Your task to perform on an android device: Open network settings Image 0: 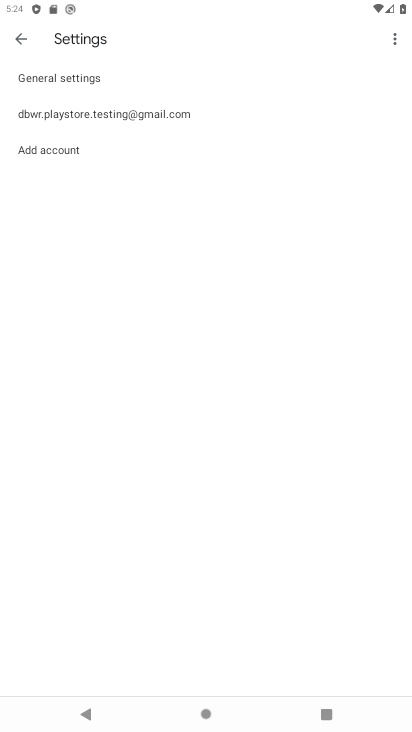
Step 0: press home button
Your task to perform on an android device: Open network settings Image 1: 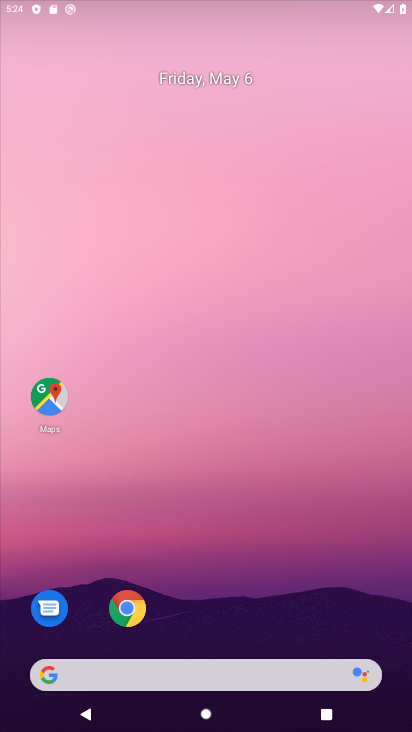
Step 1: drag from (239, 620) to (261, 8)
Your task to perform on an android device: Open network settings Image 2: 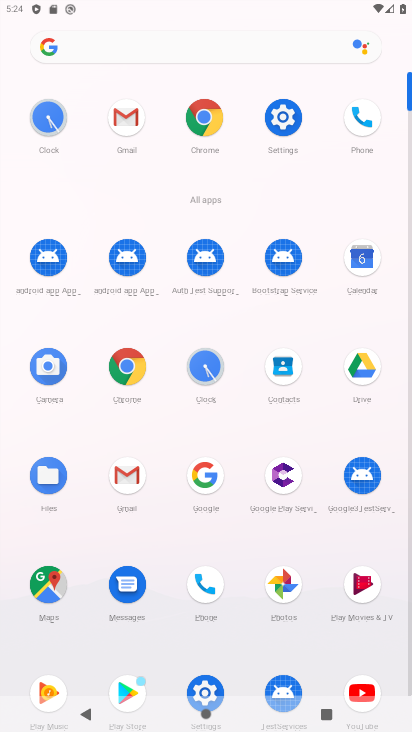
Step 2: click (275, 102)
Your task to perform on an android device: Open network settings Image 3: 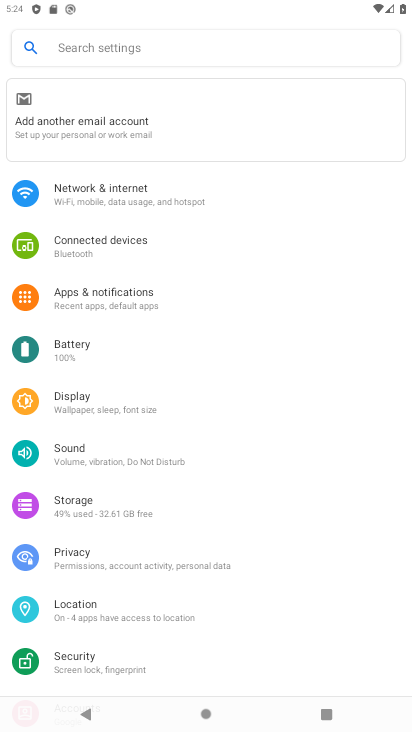
Step 3: click (116, 184)
Your task to perform on an android device: Open network settings Image 4: 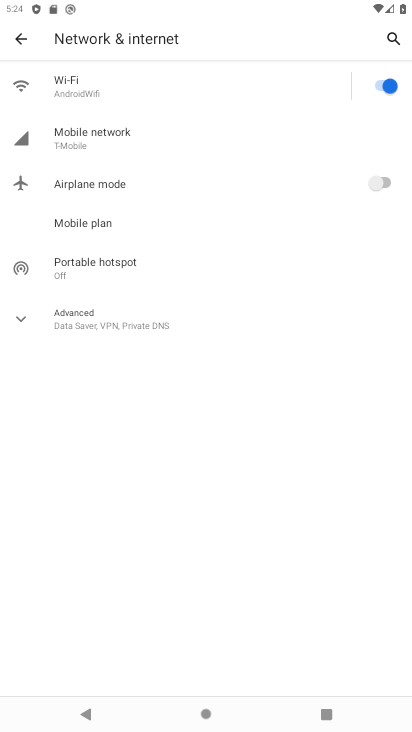
Step 4: task complete